Your task to perform on an android device: refresh tabs in the chrome app Image 0: 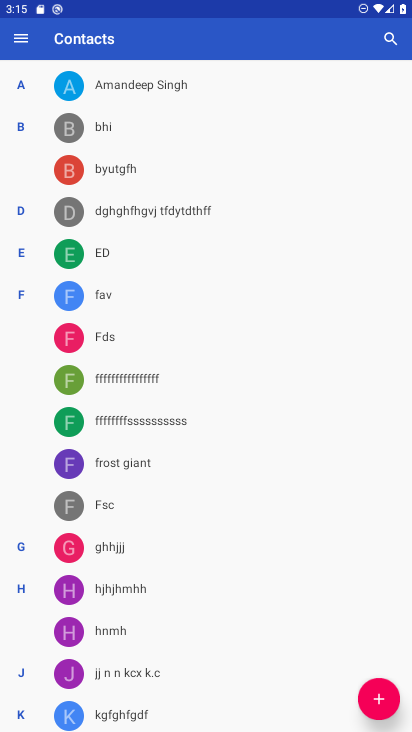
Step 0: press home button
Your task to perform on an android device: refresh tabs in the chrome app Image 1: 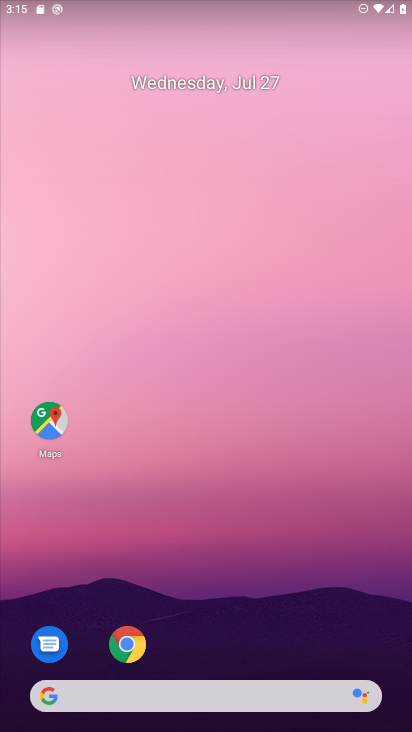
Step 1: click (138, 645)
Your task to perform on an android device: refresh tabs in the chrome app Image 2: 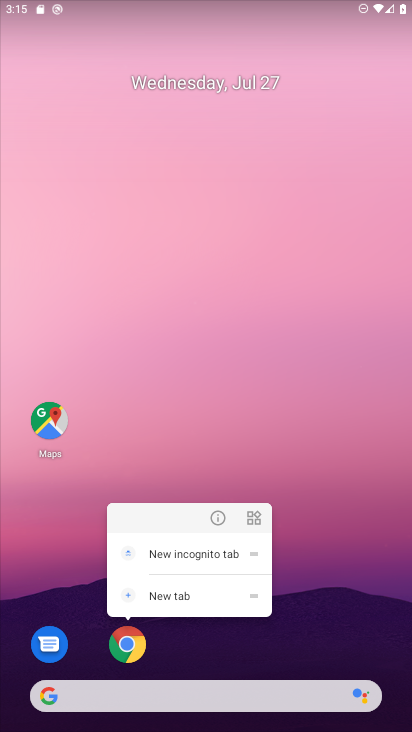
Step 2: click (124, 650)
Your task to perform on an android device: refresh tabs in the chrome app Image 3: 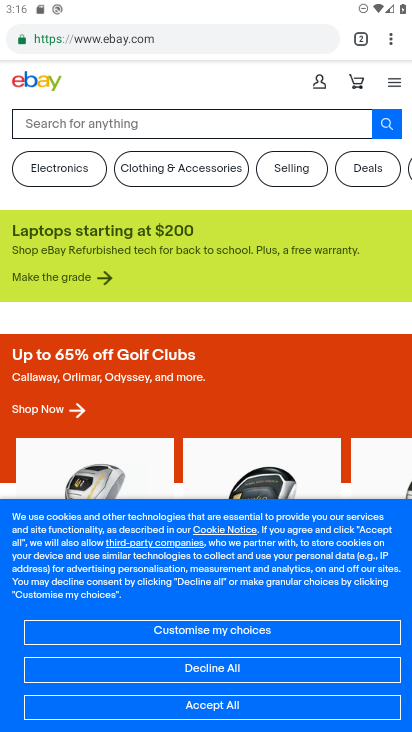
Step 3: click (388, 45)
Your task to perform on an android device: refresh tabs in the chrome app Image 4: 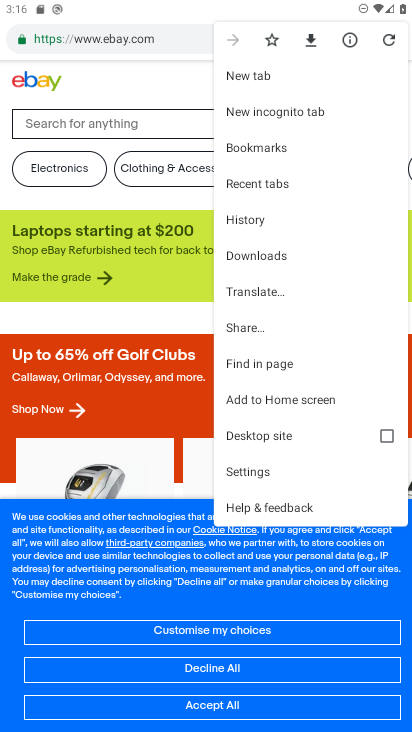
Step 4: click (385, 38)
Your task to perform on an android device: refresh tabs in the chrome app Image 5: 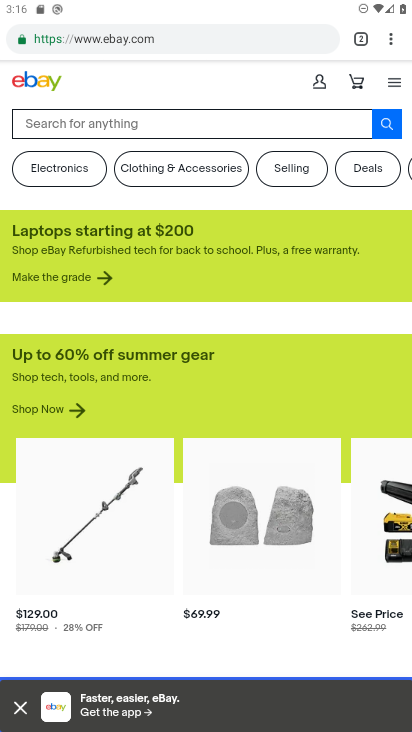
Step 5: click (389, 40)
Your task to perform on an android device: refresh tabs in the chrome app Image 6: 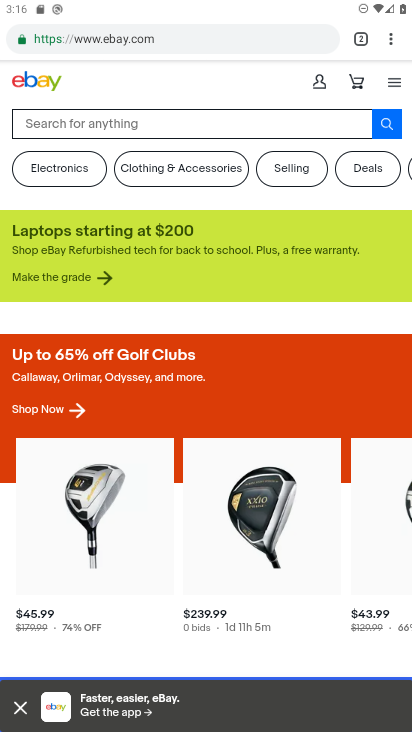
Step 6: task complete